Your task to perform on an android device: Open Google Maps Image 0: 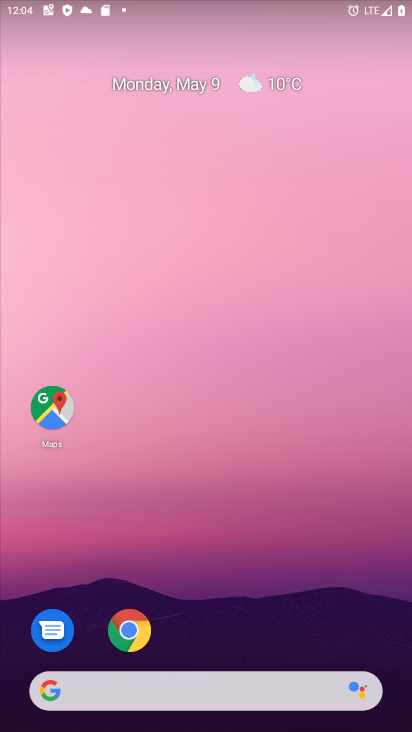
Step 0: drag from (348, 620) to (293, 29)
Your task to perform on an android device: Open Google Maps Image 1: 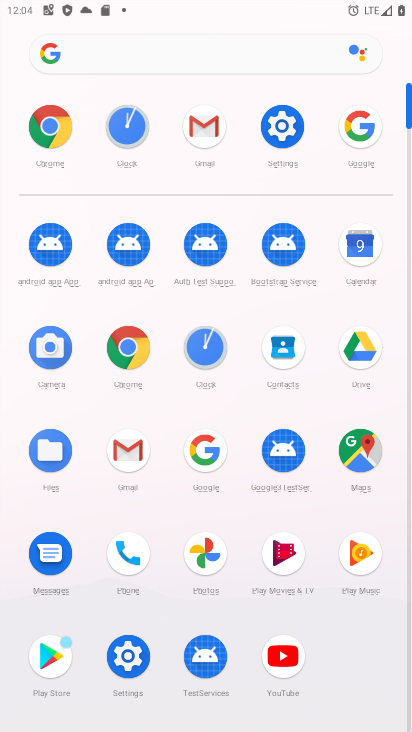
Step 1: click (360, 454)
Your task to perform on an android device: Open Google Maps Image 2: 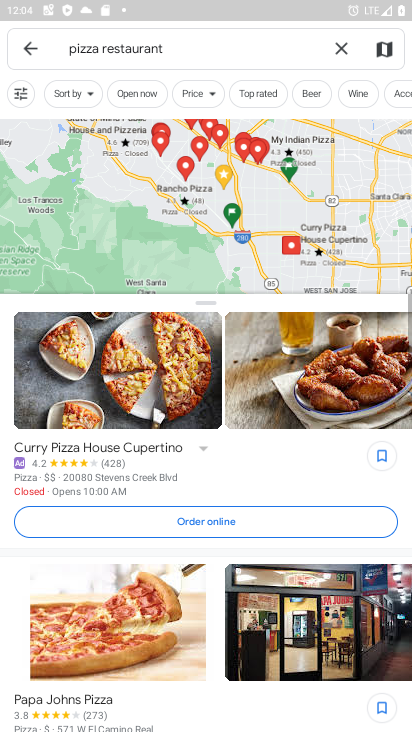
Step 2: click (343, 53)
Your task to perform on an android device: Open Google Maps Image 3: 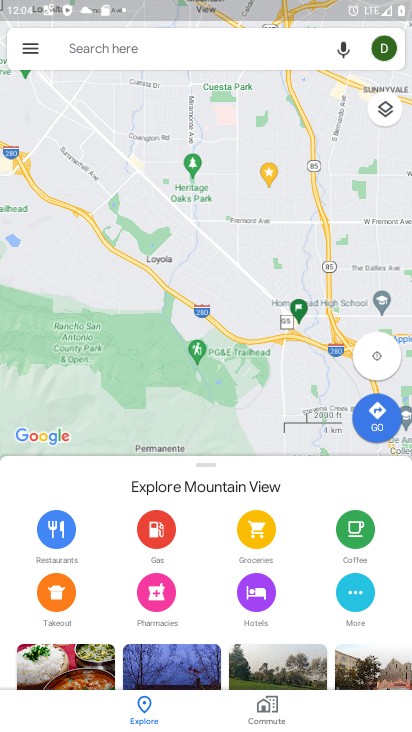
Step 3: task complete